Your task to perform on an android device: turn on javascript in the chrome app Image 0: 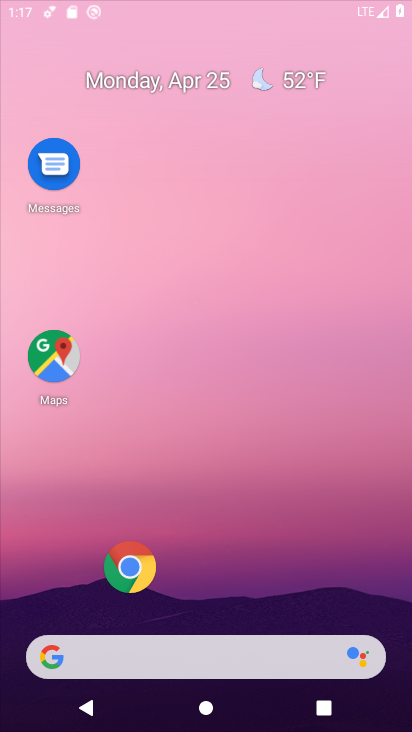
Step 0: drag from (245, 629) to (284, 0)
Your task to perform on an android device: turn on javascript in the chrome app Image 1: 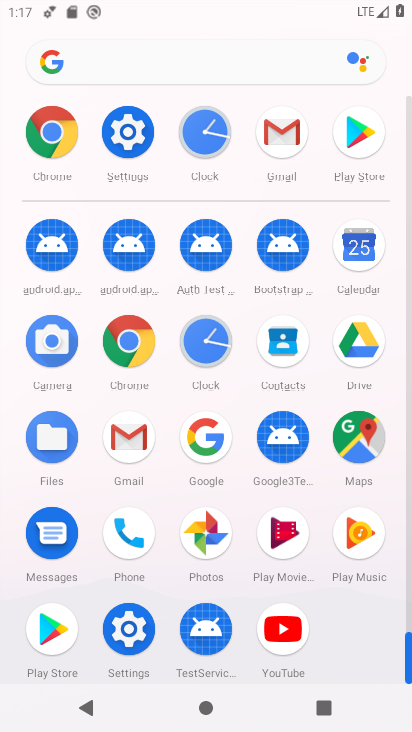
Step 1: click (57, 157)
Your task to perform on an android device: turn on javascript in the chrome app Image 2: 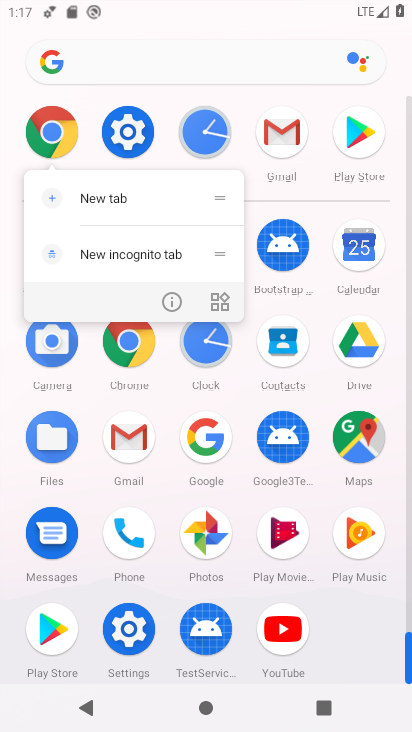
Step 2: click (55, 159)
Your task to perform on an android device: turn on javascript in the chrome app Image 3: 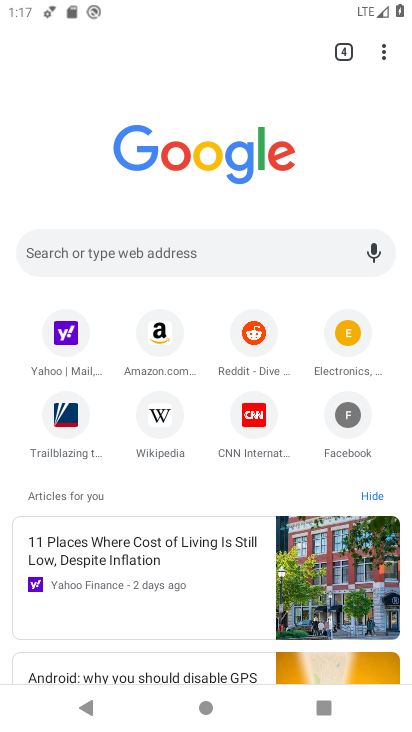
Step 3: click (386, 55)
Your task to perform on an android device: turn on javascript in the chrome app Image 4: 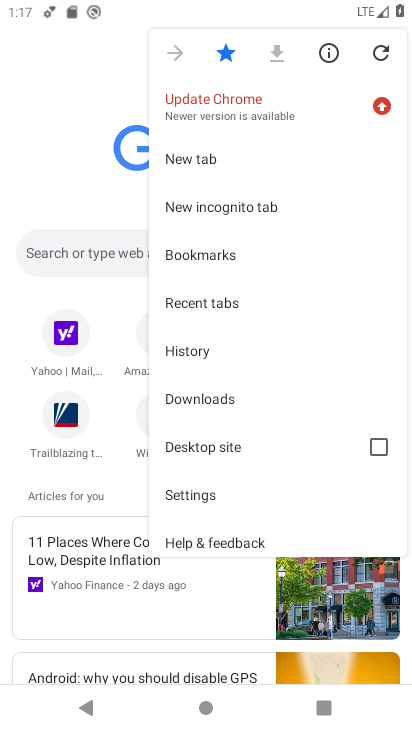
Step 4: drag from (216, 378) to (231, 41)
Your task to perform on an android device: turn on javascript in the chrome app Image 5: 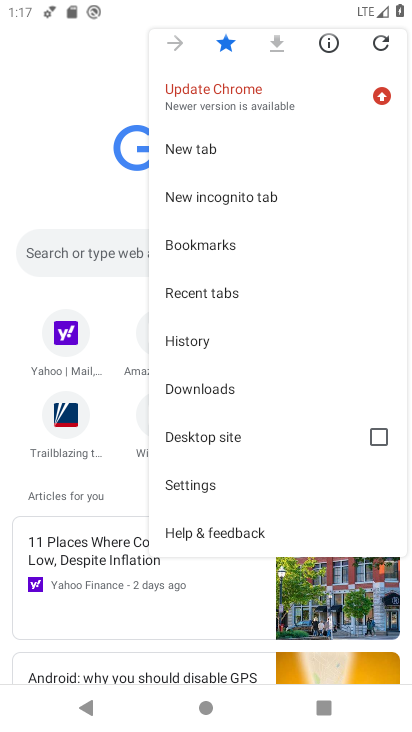
Step 5: click (204, 492)
Your task to perform on an android device: turn on javascript in the chrome app Image 6: 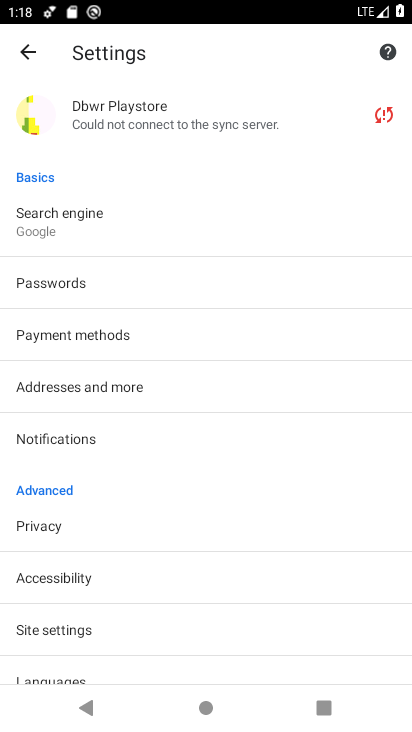
Step 6: drag from (235, 598) to (292, 83)
Your task to perform on an android device: turn on javascript in the chrome app Image 7: 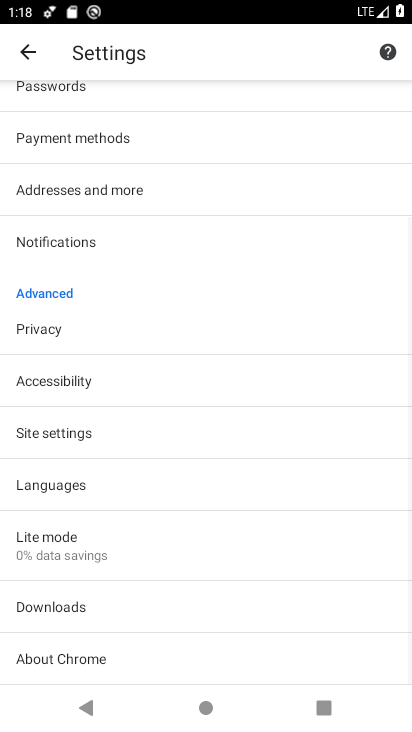
Step 7: click (94, 428)
Your task to perform on an android device: turn on javascript in the chrome app Image 8: 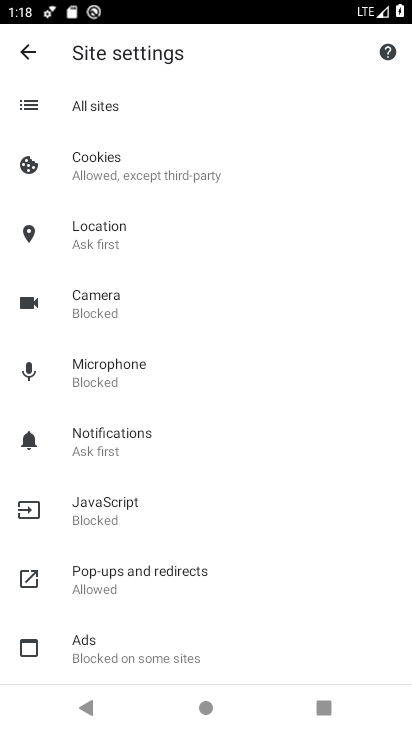
Step 8: click (137, 521)
Your task to perform on an android device: turn on javascript in the chrome app Image 9: 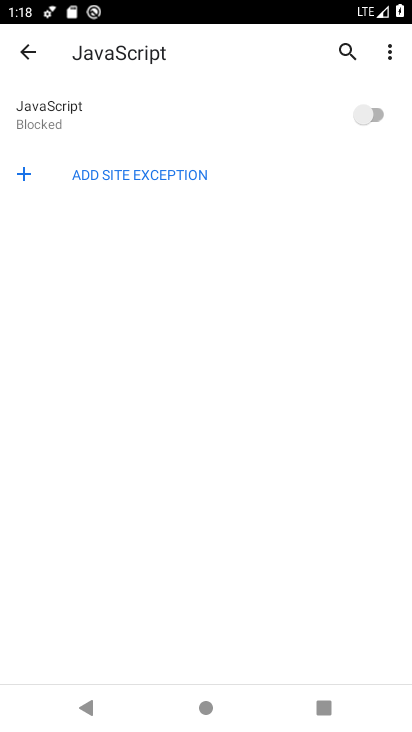
Step 9: click (373, 115)
Your task to perform on an android device: turn on javascript in the chrome app Image 10: 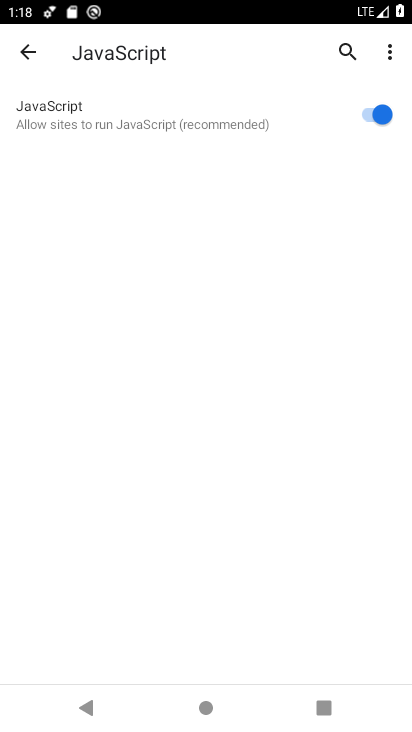
Step 10: task complete